Your task to perform on an android device: uninstall "Adobe Acrobat Reader" Image 0: 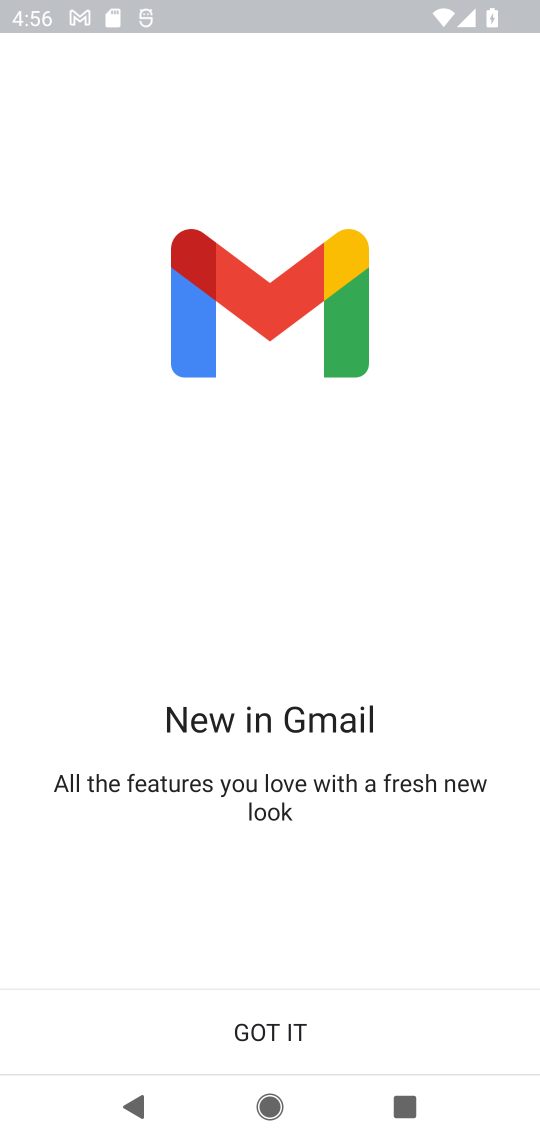
Step 0: press home button
Your task to perform on an android device: uninstall "Adobe Acrobat Reader" Image 1: 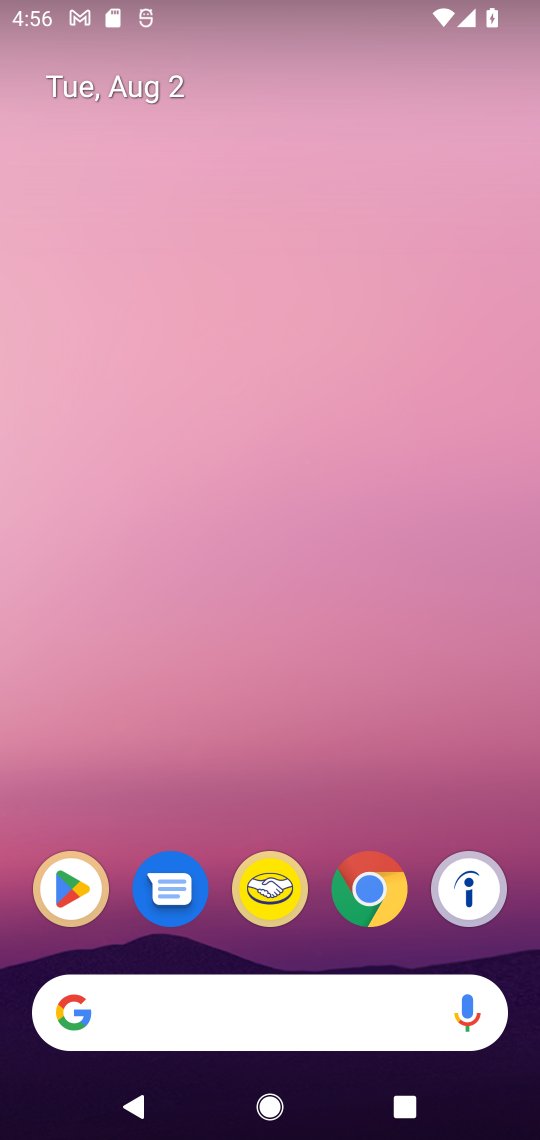
Step 1: drag from (435, 781) to (343, 66)
Your task to perform on an android device: uninstall "Adobe Acrobat Reader" Image 2: 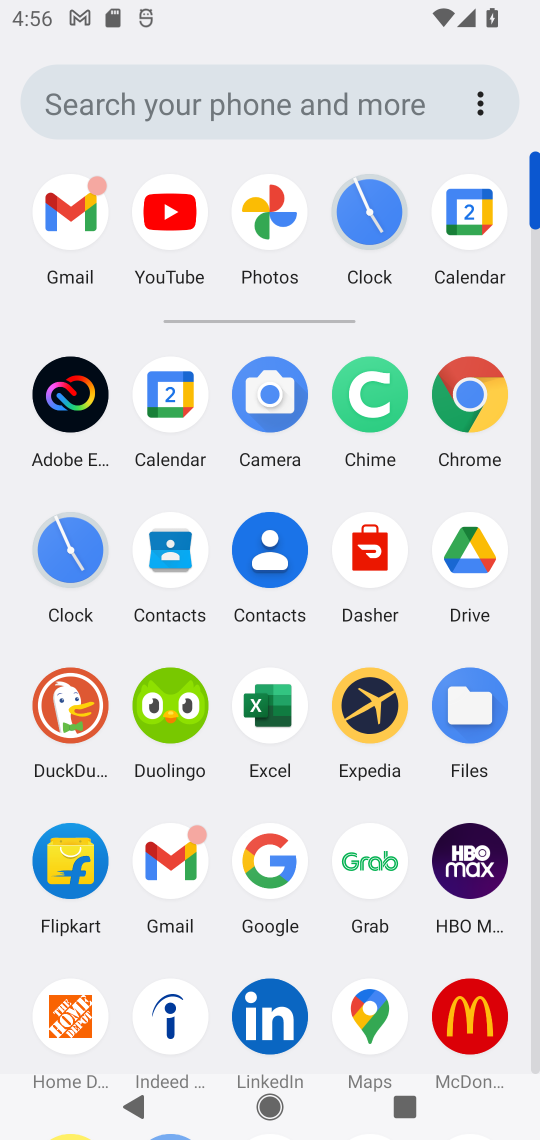
Step 2: drag from (508, 931) to (521, 394)
Your task to perform on an android device: uninstall "Adobe Acrobat Reader" Image 3: 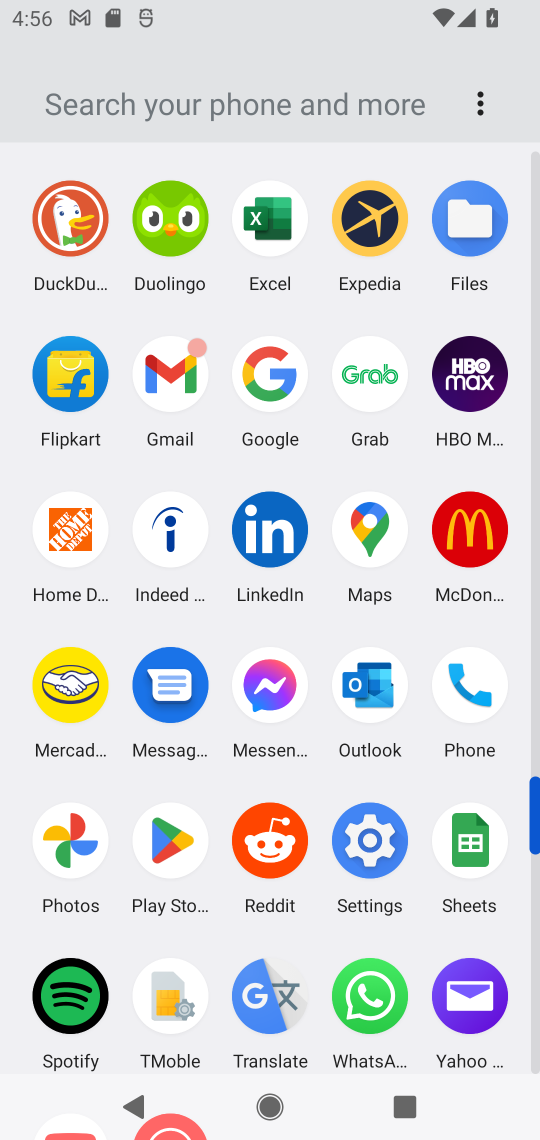
Step 3: click (184, 845)
Your task to perform on an android device: uninstall "Adobe Acrobat Reader" Image 4: 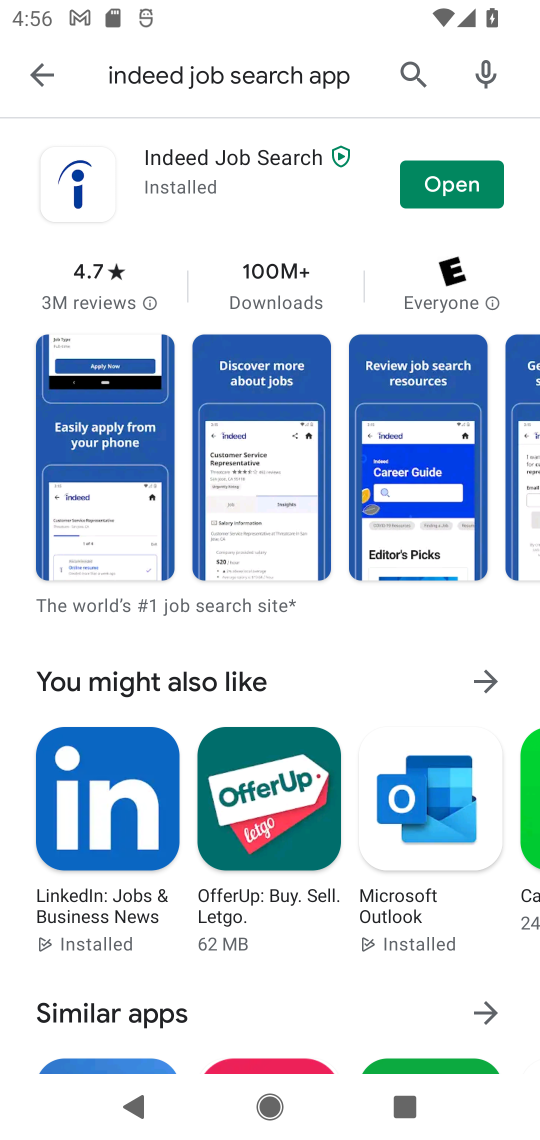
Step 4: click (404, 68)
Your task to perform on an android device: uninstall "Adobe Acrobat Reader" Image 5: 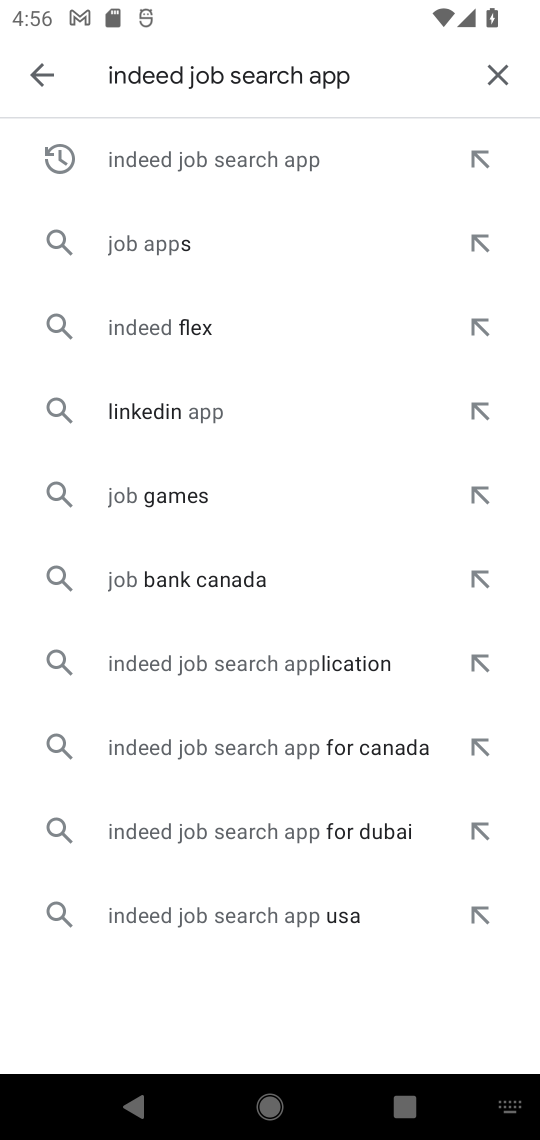
Step 5: click (505, 76)
Your task to perform on an android device: uninstall "Adobe Acrobat Reader" Image 6: 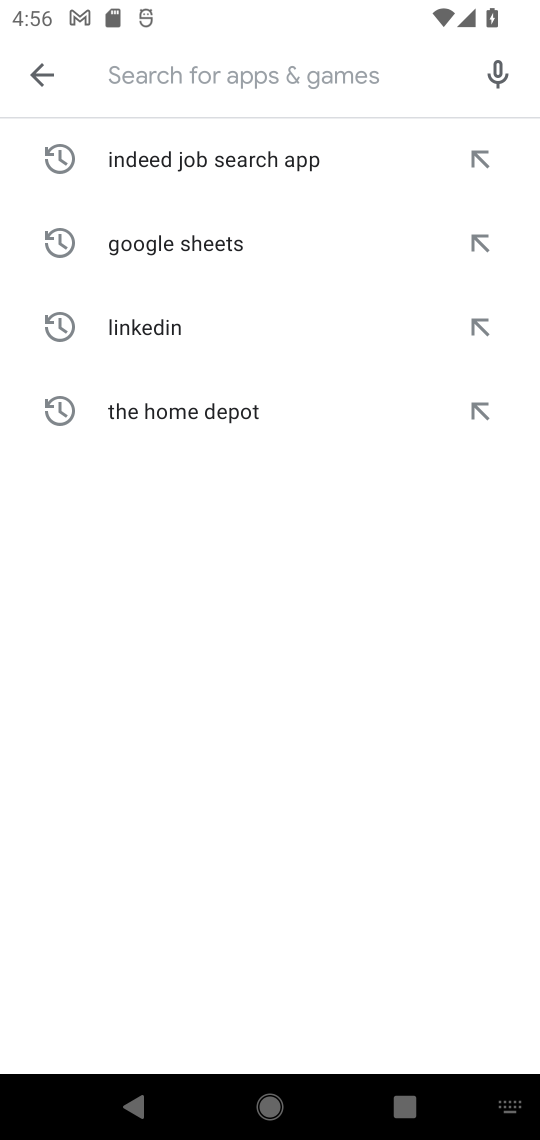
Step 6: type "Adobe Acrobat Reader"
Your task to perform on an android device: uninstall "Adobe Acrobat Reader" Image 7: 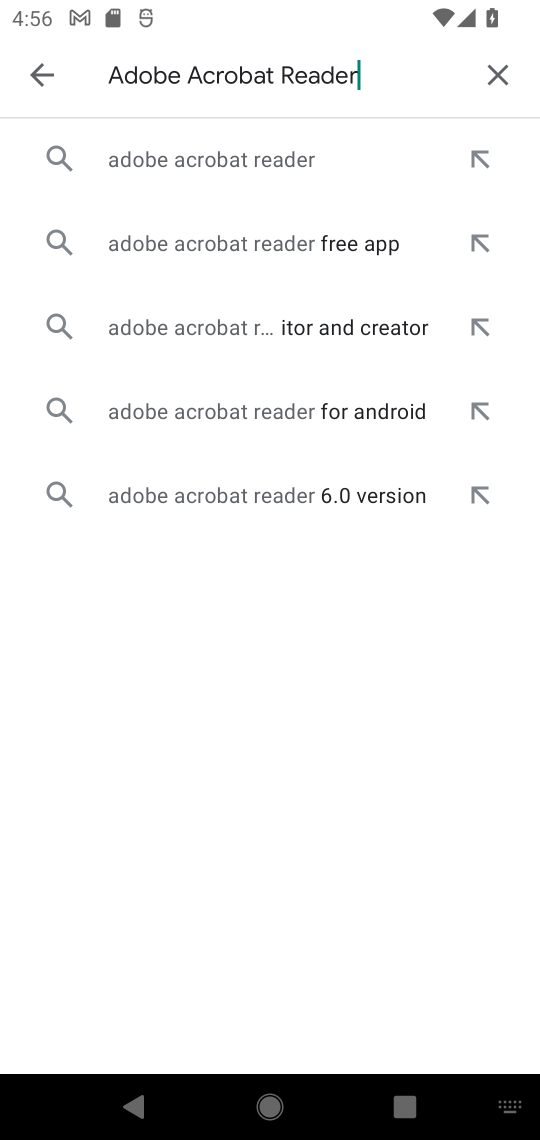
Step 7: click (309, 161)
Your task to perform on an android device: uninstall "Adobe Acrobat Reader" Image 8: 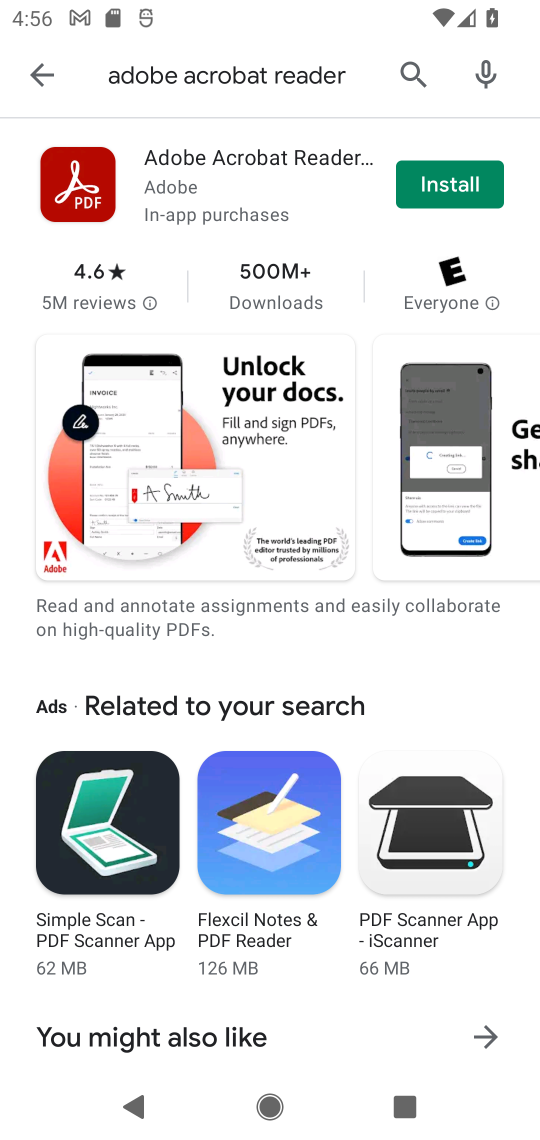
Step 8: task complete